Your task to perform on an android device: Open the web browser Image 0: 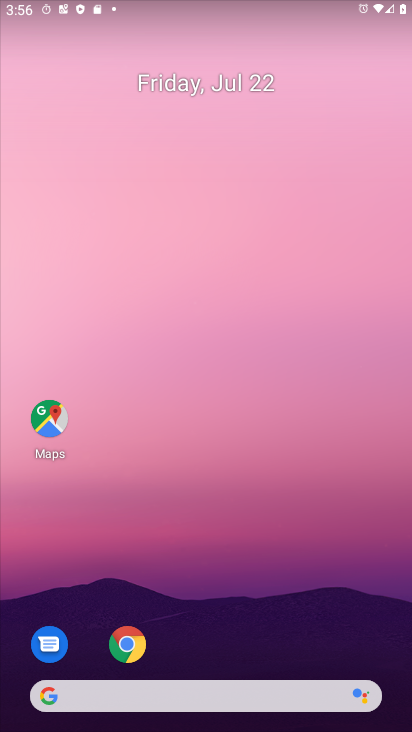
Step 0: press home button
Your task to perform on an android device: Open the web browser Image 1: 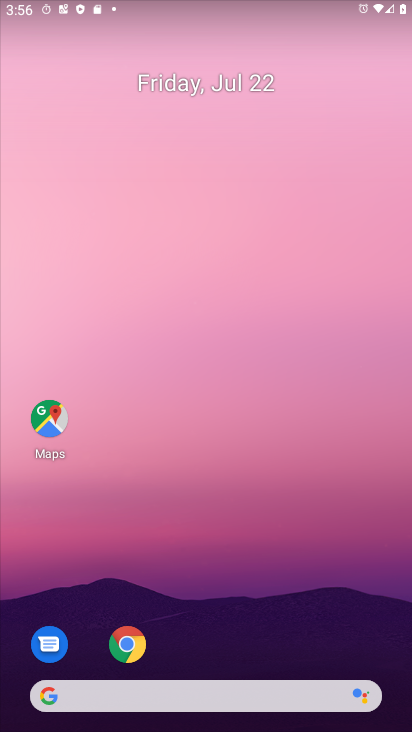
Step 1: click (48, 700)
Your task to perform on an android device: Open the web browser Image 2: 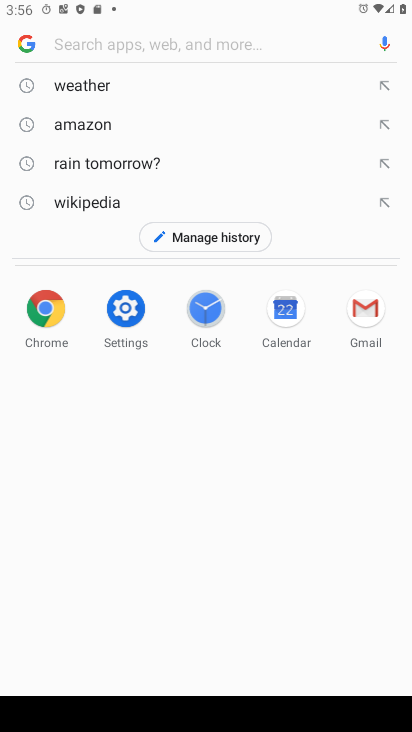
Step 2: task complete